Your task to perform on an android device: show emergency info Image 0: 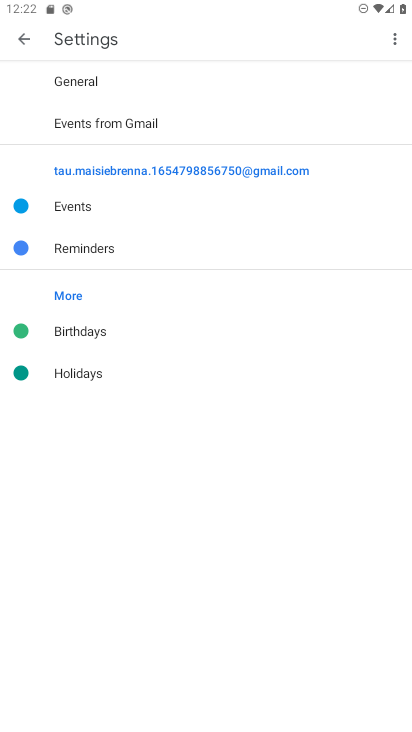
Step 0: press home button
Your task to perform on an android device: show emergency info Image 1: 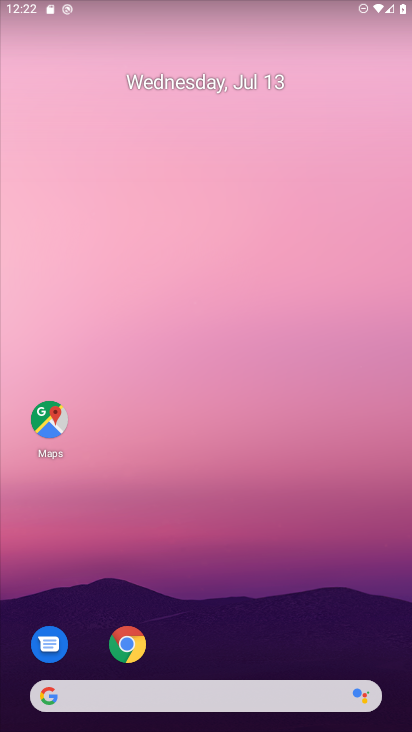
Step 1: drag from (157, 720) to (189, 126)
Your task to perform on an android device: show emergency info Image 2: 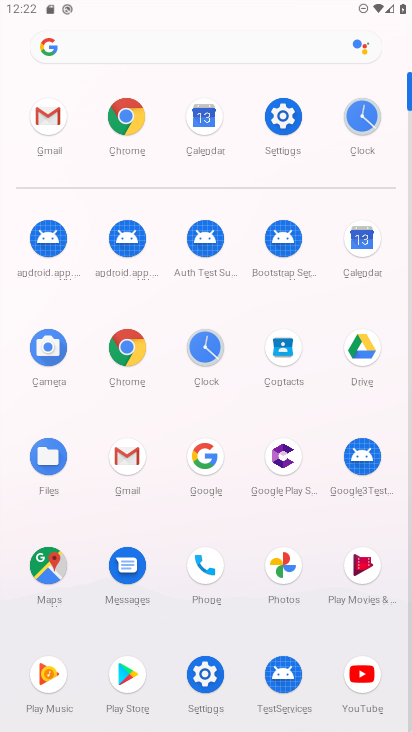
Step 2: click (287, 106)
Your task to perform on an android device: show emergency info Image 3: 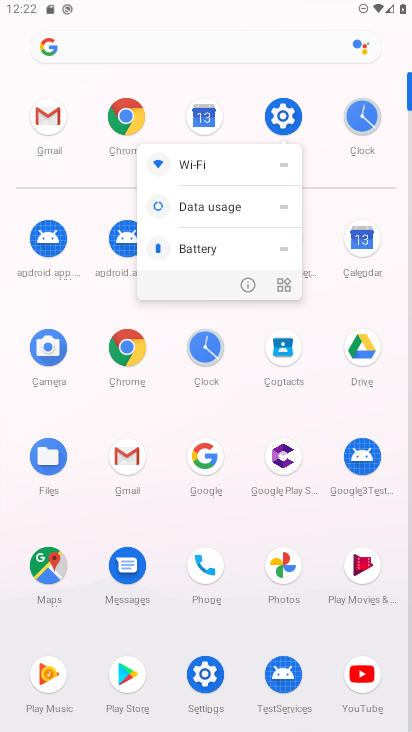
Step 3: click (287, 106)
Your task to perform on an android device: show emergency info Image 4: 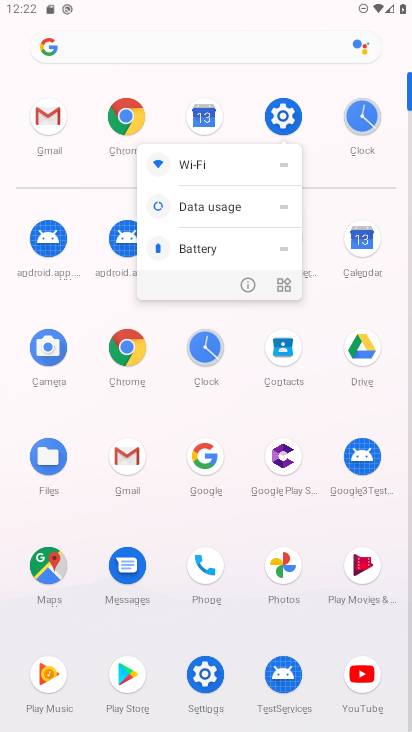
Step 4: click (287, 106)
Your task to perform on an android device: show emergency info Image 5: 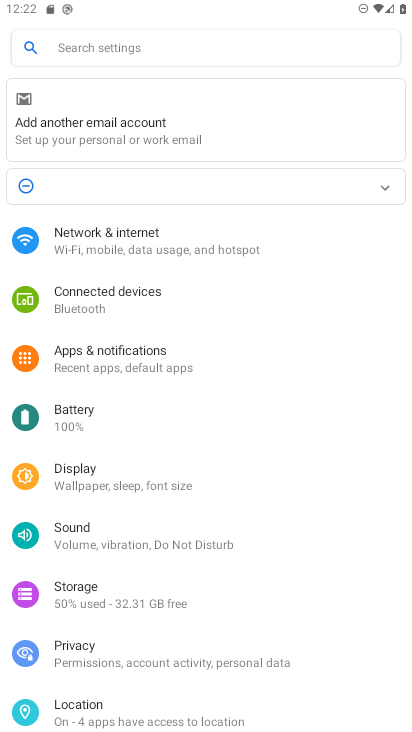
Step 5: drag from (181, 620) to (78, 0)
Your task to perform on an android device: show emergency info Image 6: 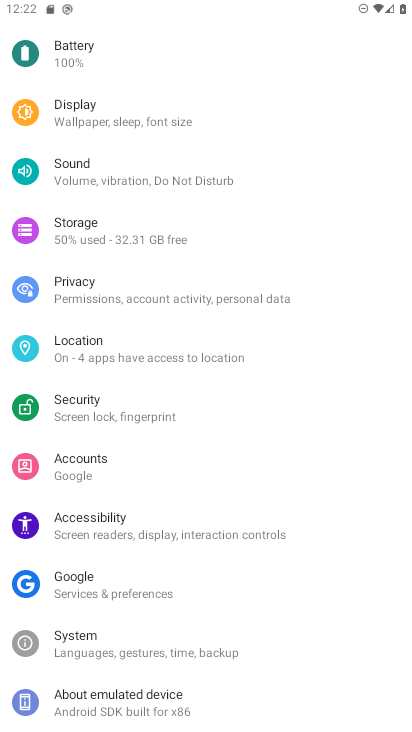
Step 6: drag from (303, 665) to (411, 420)
Your task to perform on an android device: show emergency info Image 7: 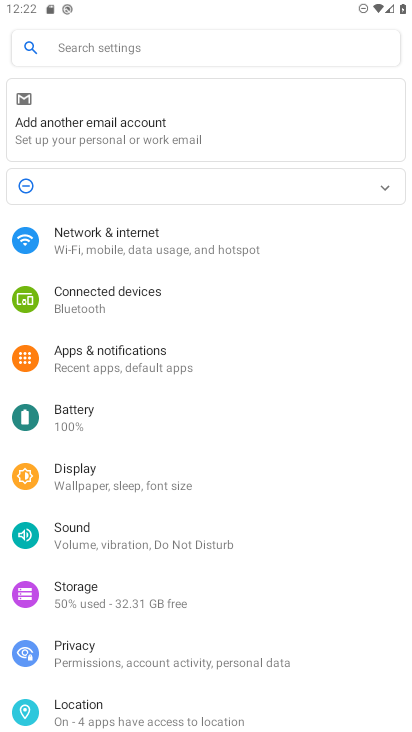
Step 7: drag from (277, 661) to (324, 33)
Your task to perform on an android device: show emergency info Image 8: 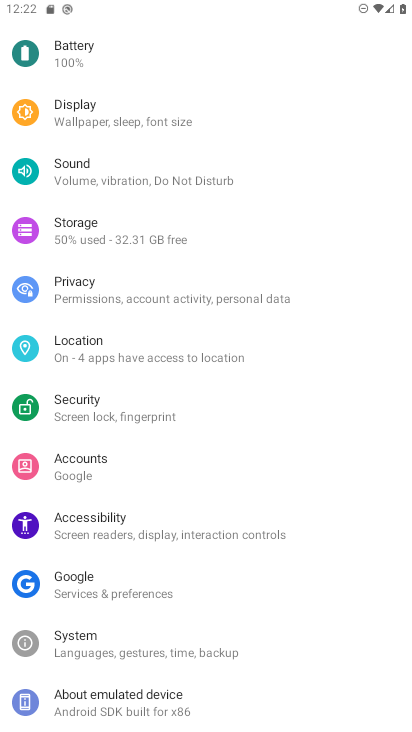
Step 8: click (161, 704)
Your task to perform on an android device: show emergency info Image 9: 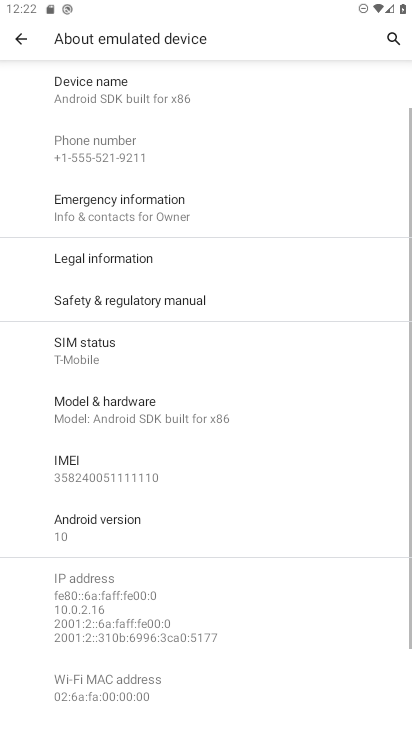
Step 9: task complete